Your task to perform on an android device: Show me the alarms in the clock app Image 0: 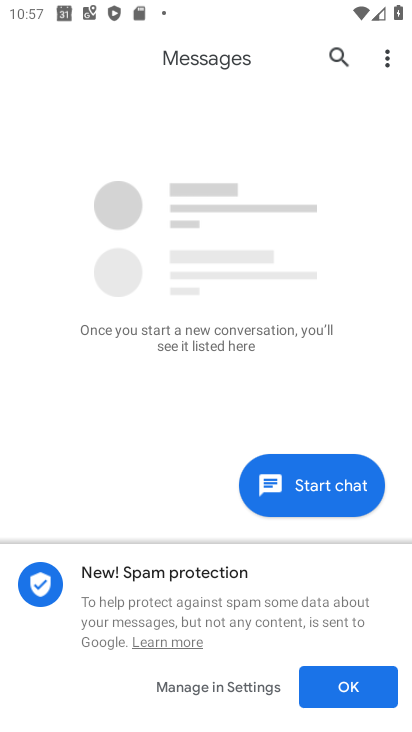
Step 0: click (340, 528)
Your task to perform on an android device: Show me the alarms in the clock app Image 1: 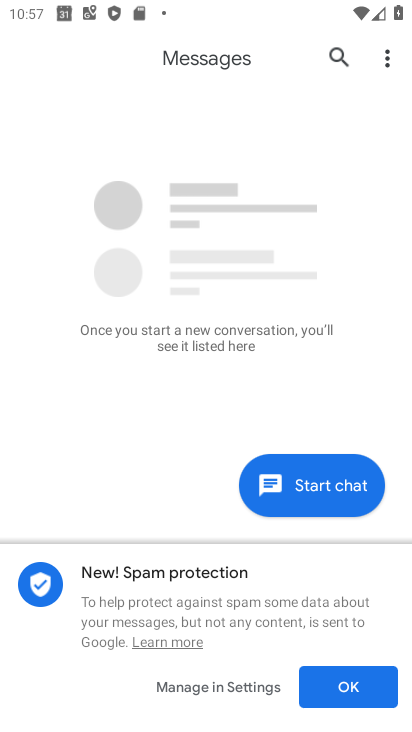
Step 1: press home button
Your task to perform on an android device: Show me the alarms in the clock app Image 2: 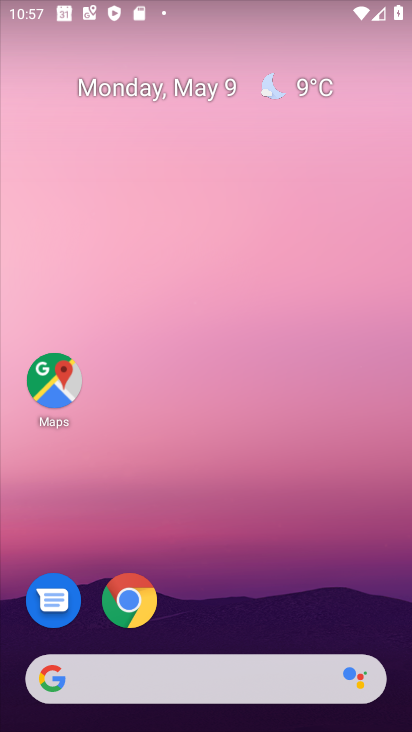
Step 2: drag from (340, 560) to (289, 161)
Your task to perform on an android device: Show me the alarms in the clock app Image 3: 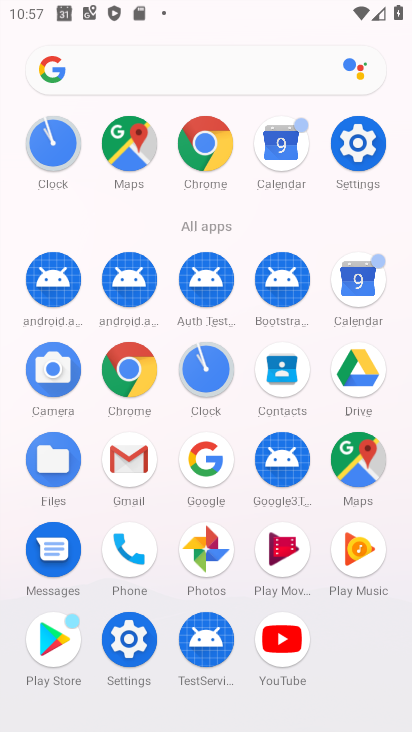
Step 3: click (208, 377)
Your task to perform on an android device: Show me the alarms in the clock app Image 4: 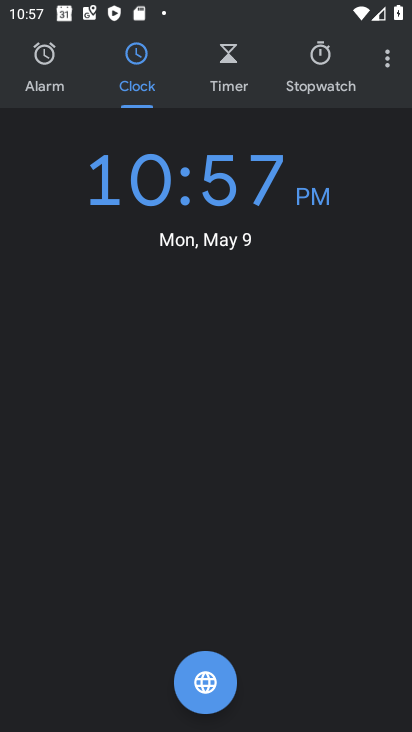
Step 4: click (52, 67)
Your task to perform on an android device: Show me the alarms in the clock app Image 5: 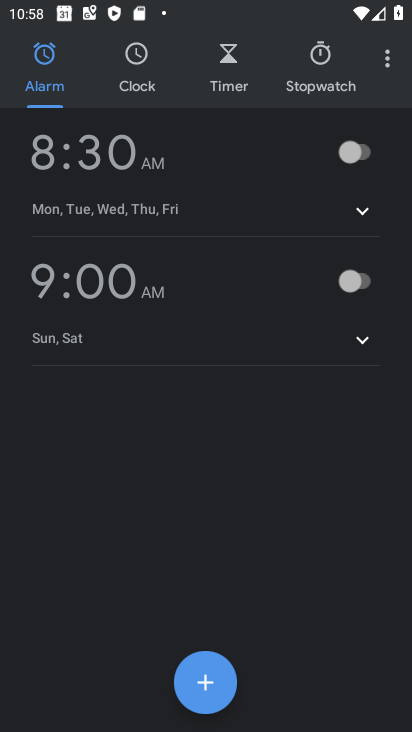
Step 5: task complete